Your task to perform on an android device: Open Chrome and go to settings Image 0: 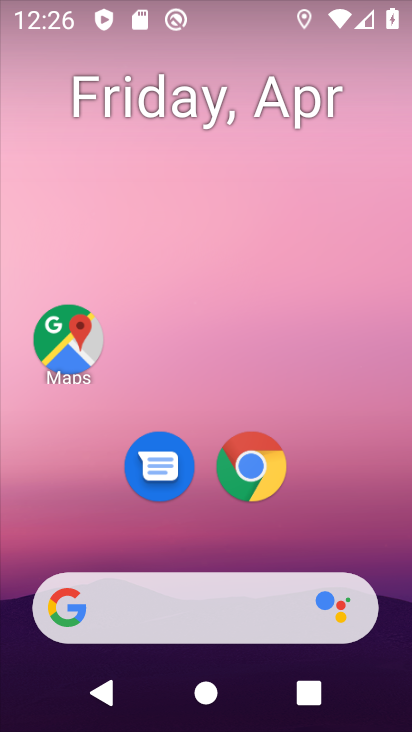
Step 0: drag from (376, 530) to (364, 88)
Your task to perform on an android device: Open Chrome and go to settings Image 1: 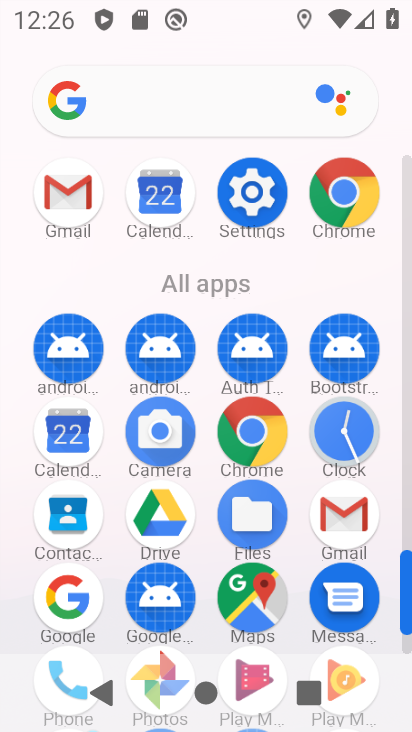
Step 1: click (347, 197)
Your task to perform on an android device: Open Chrome and go to settings Image 2: 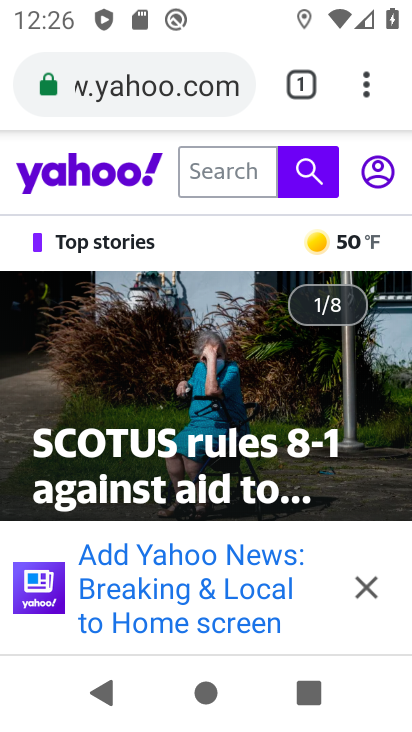
Step 2: task complete